Your task to perform on an android device: Check the news Image 0: 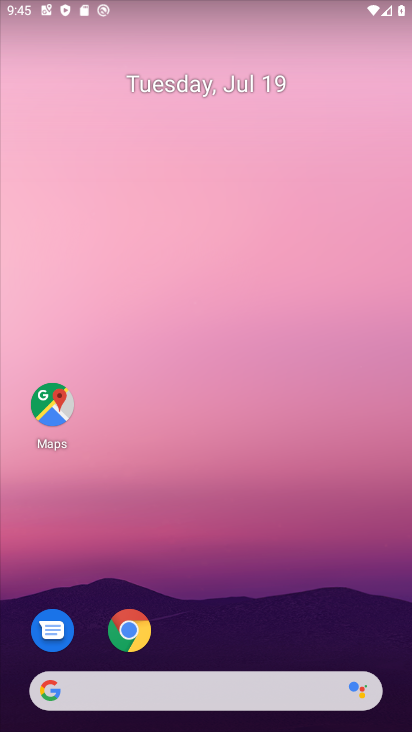
Step 0: drag from (215, 637) to (192, 40)
Your task to perform on an android device: Check the news Image 1: 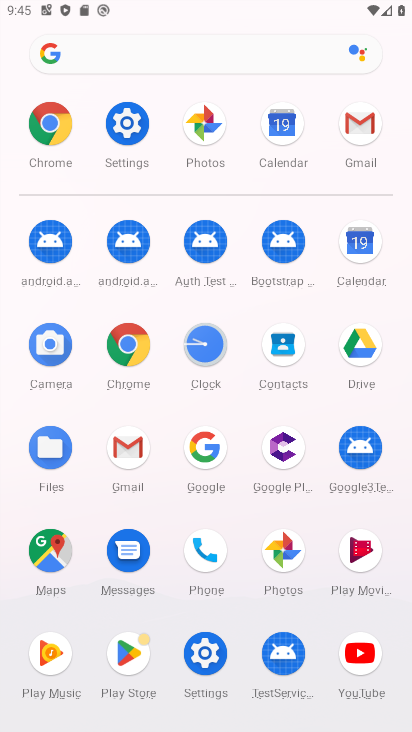
Step 1: click (200, 446)
Your task to perform on an android device: Check the news Image 2: 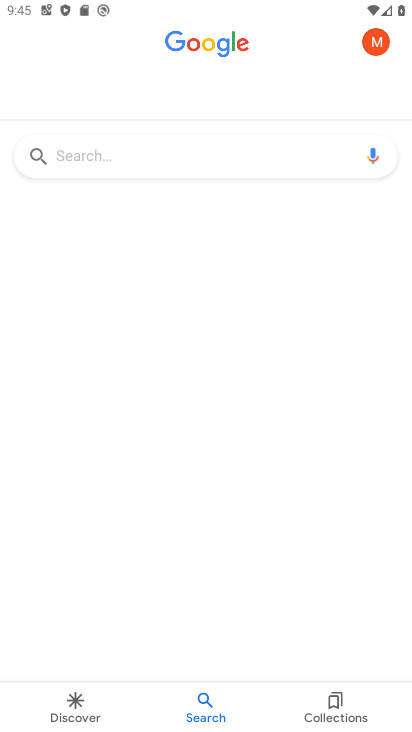
Step 2: click (161, 153)
Your task to perform on an android device: Check the news Image 3: 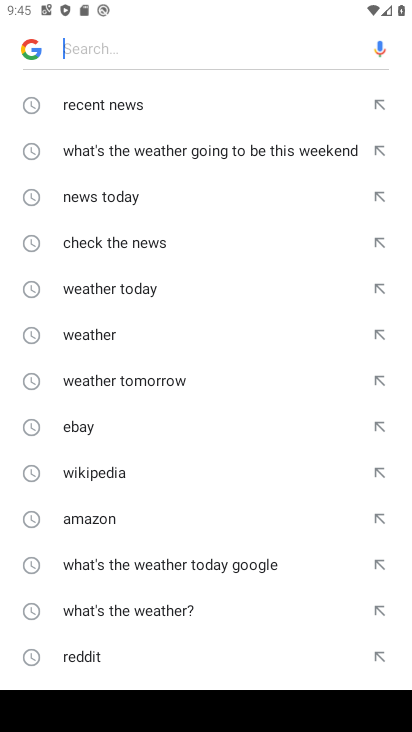
Step 3: type "check the news"
Your task to perform on an android device: Check the news Image 4: 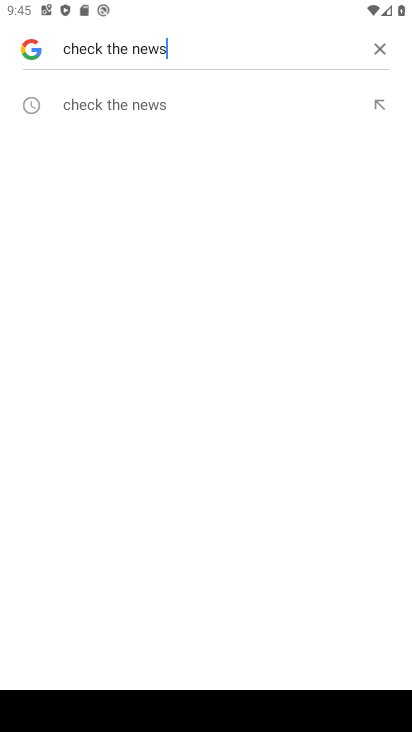
Step 4: click (122, 107)
Your task to perform on an android device: Check the news Image 5: 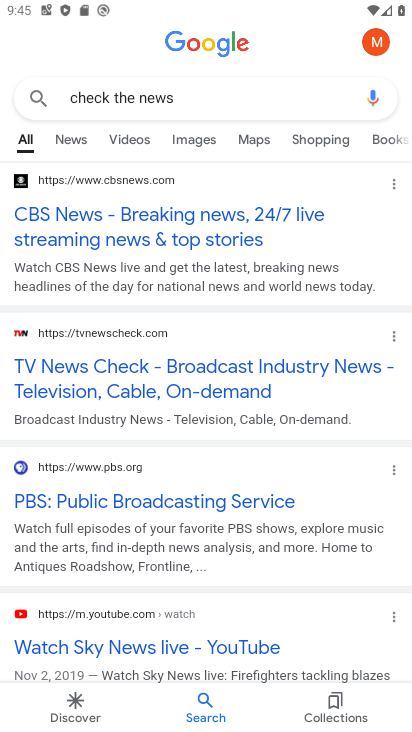
Step 5: task complete